Your task to perform on an android device: open wifi settings Image 0: 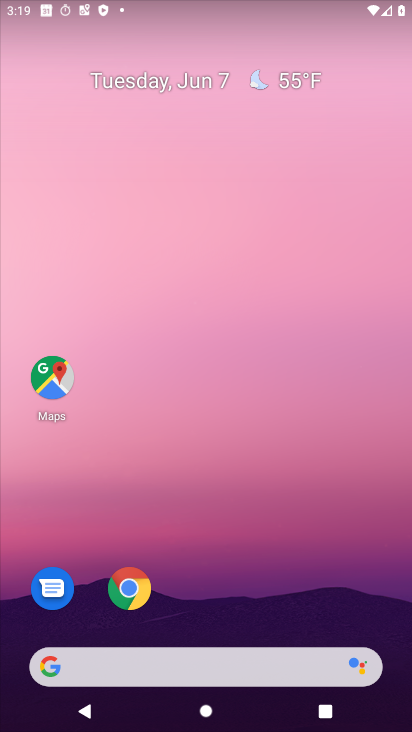
Step 0: press home button
Your task to perform on an android device: open wifi settings Image 1: 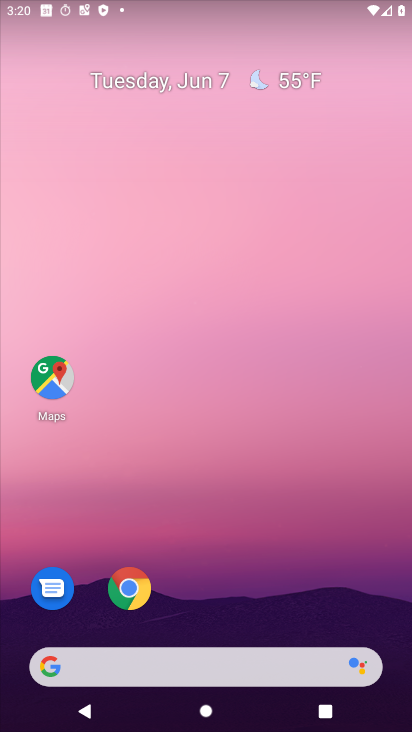
Step 1: drag from (228, 613) to (257, 23)
Your task to perform on an android device: open wifi settings Image 2: 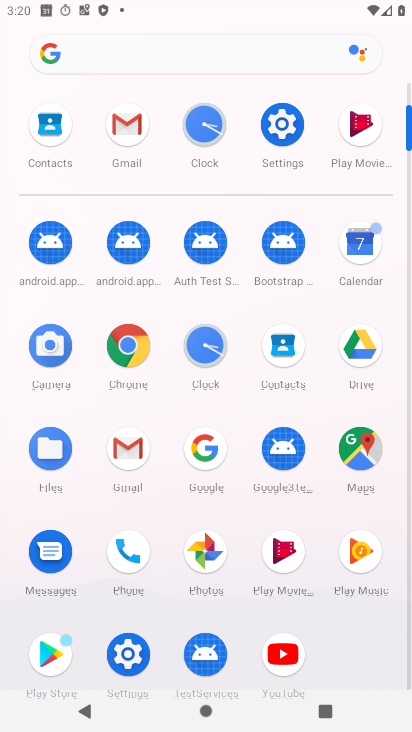
Step 2: click (281, 117)
Your task to perform on an android device: open wifi settings Image 3: 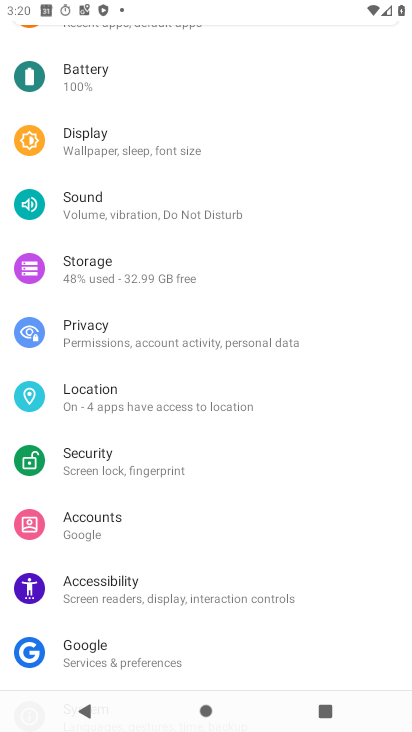
Step 3: drag from (225, 133) to (222, 608)
Your task to perform on an android device: open wifi settings Image 4: 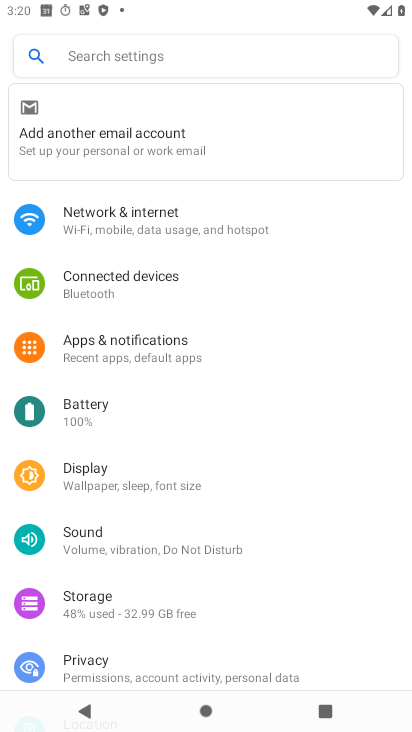
Step 4: click (133, 224)
Your task to perform on an android device: open wifi settings Image 5: 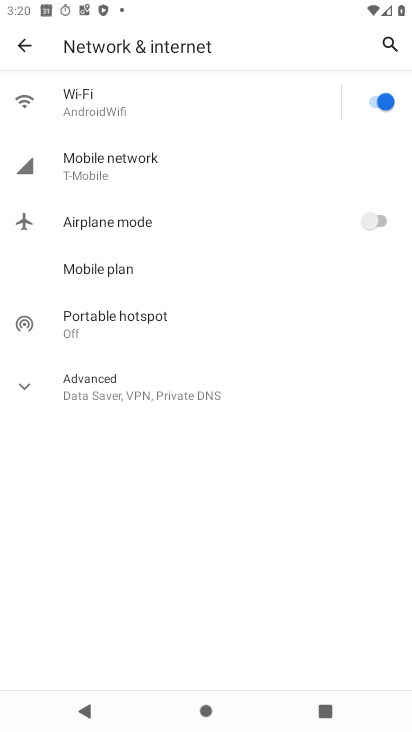
Step 5: click (96, 102)
Your task to perform on an android device: open wifi settings Image 6: 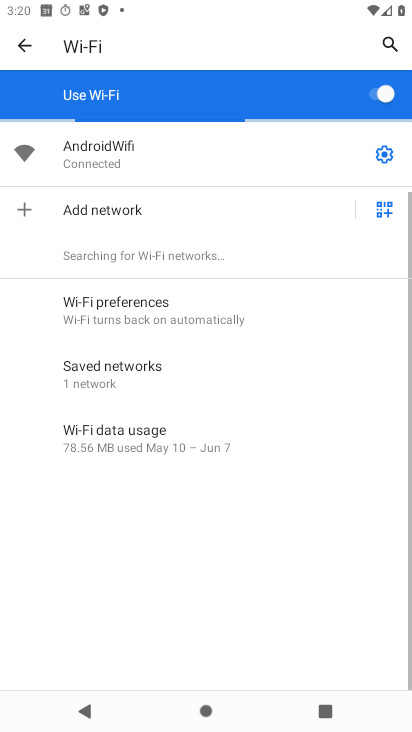
Step 6: task complete